Your task to perform on an android device: What's on my calendar tomorrow? Image 0: 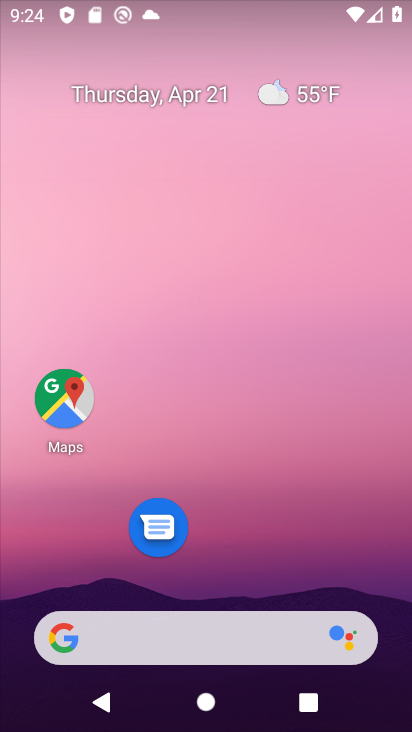
Step 0: drag from (215, 591) to (204, 118)
Your task to perform on an android device: What's on my calendar tomorrow? Image 1: 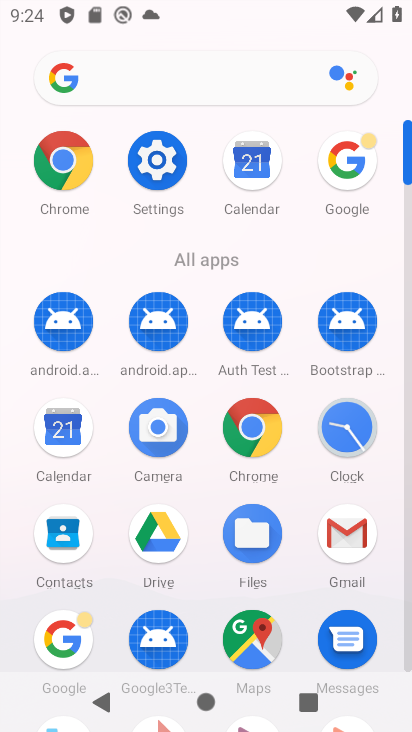
Step 1: click (59, 413)
Your task to perform on an android device: What's on my calendar tomorrow? Image 2: 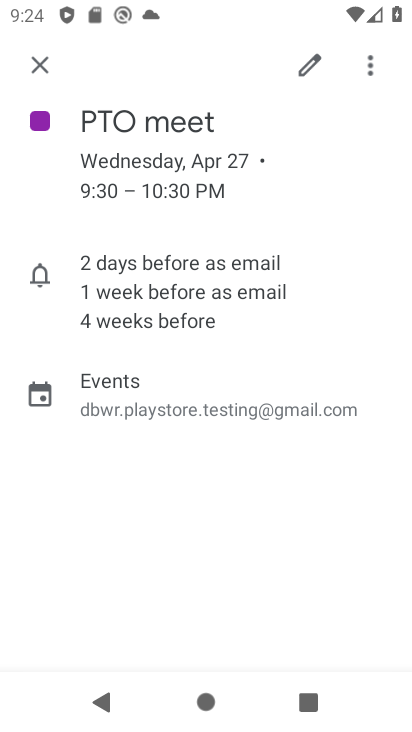
Step 2: click (43, 62)
Your task to perform on an android device: What's on my calendar tomorrow? Image 3: 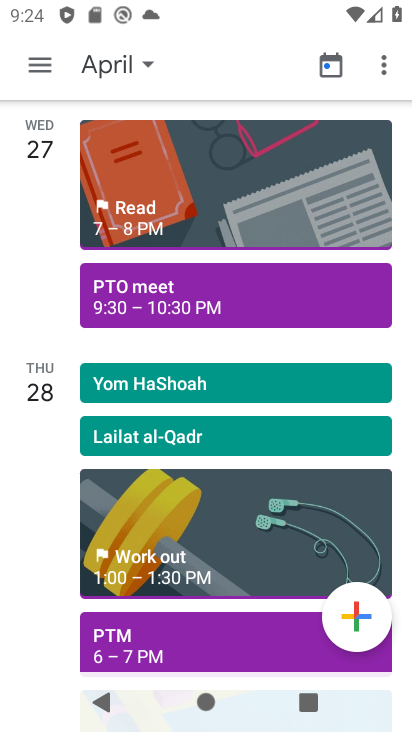
Step 3: click (122, 70)
Your task to perform on an android device: What's on my calendar tomorrow? Image 4: 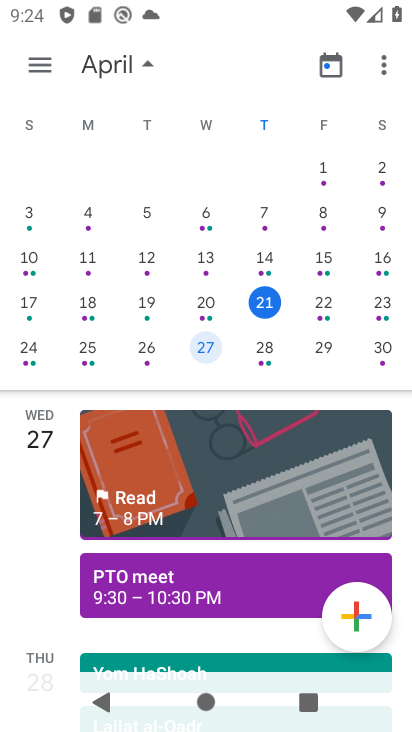
Step 4: click (322, 302)
Your task to perform on an android device: What's on my calendar tomorrow? Image 5: 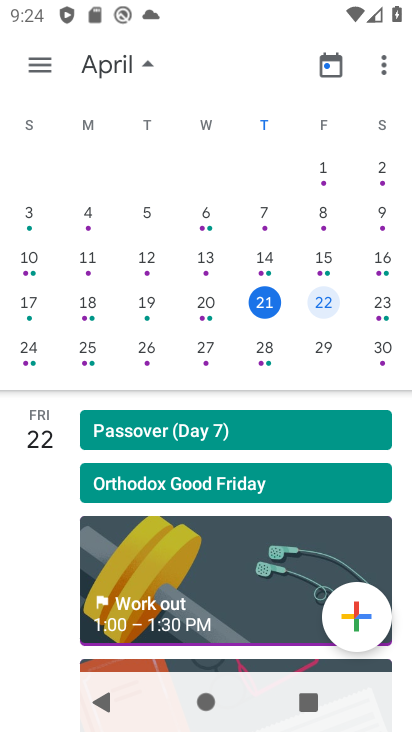
Step 5: task complete